Your task to perform on an android device: open a new tab in the chrome app Image 0: 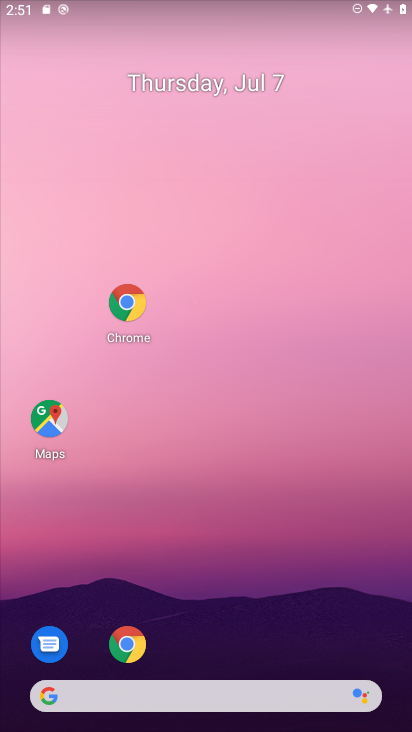
Step 0: drag from (244, 592) to (248, 156)
Your task to perform on an android device: open a new tab in the chrome app Image 1: 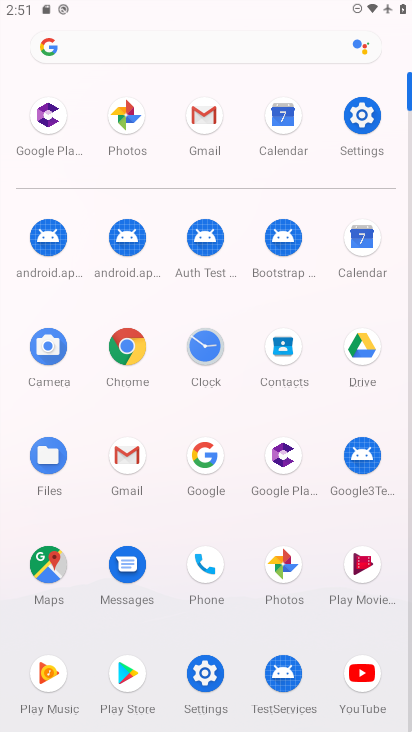
Step 1: click (142, 354)
Your task to perform on an android device: open a new tab in the chrome app Image 2: 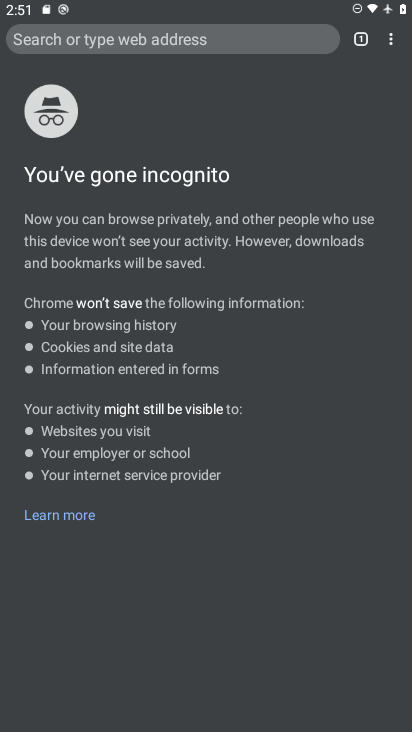
Step 2: click (362, 43)
Your task to perform on an android device: open a new tab in the chrome app Image 3: 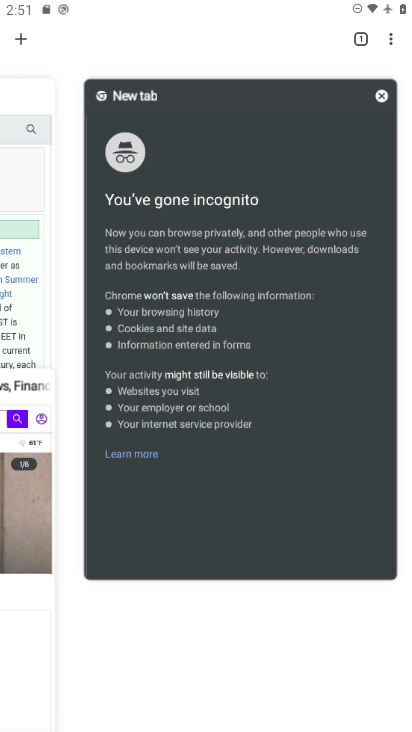
Step 3: click (7, 44)
Your task to perform on an android device: open a new tab in the chrome app Image 4: 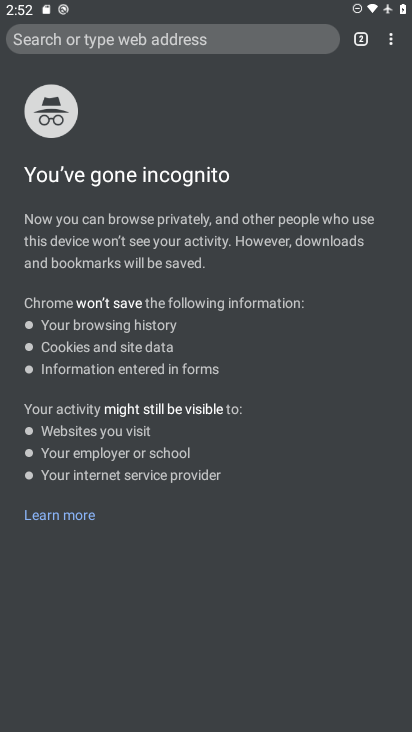
Step 4: task complete